Your task to perform on an android device: Open the Play Movies app and select the watchlist tab. Image 0: 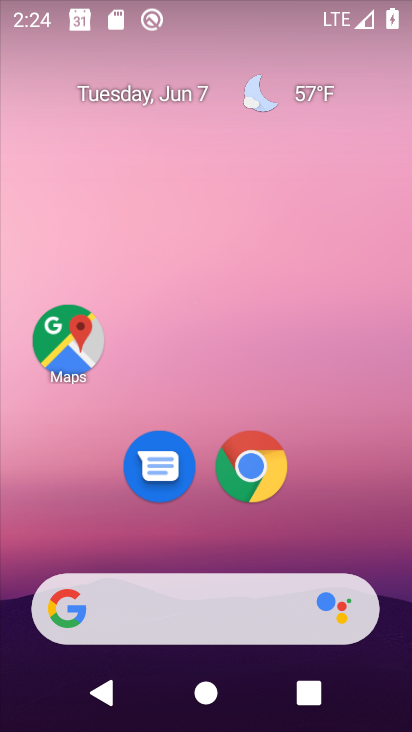
Step 0: drag from (186, 573) to (271, 40)
Your task to perform on an android device: Open the Play Movies app and select the watchlist tab. Image 1: 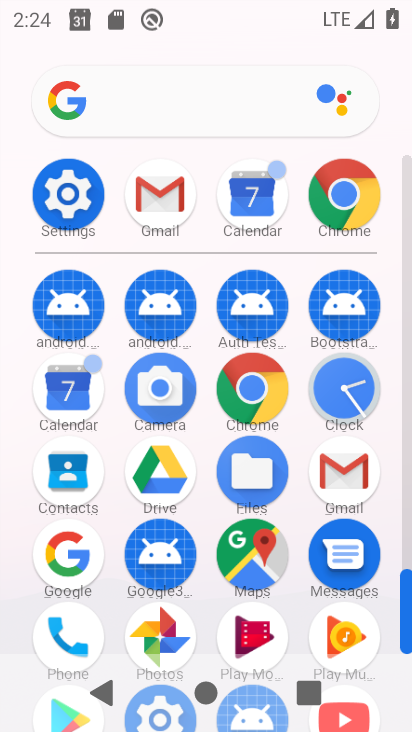
Step 1: click (242, 629)
Your task to perform on an android device: Open the Play Movies app and select the watchlist tab. Image 2: 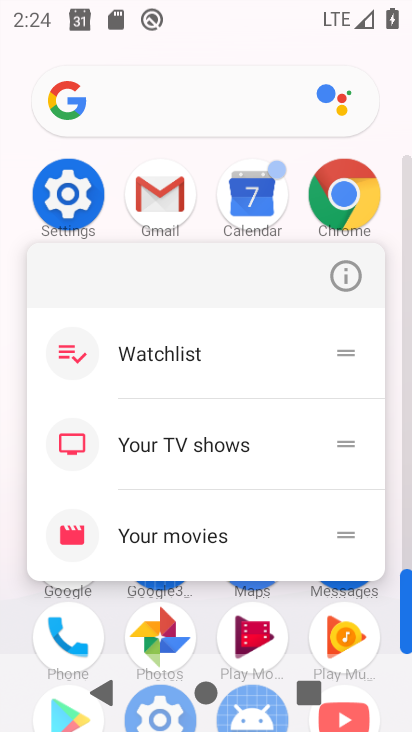
Step 2: click (244, 627)
Your task to perform on an android device: Open the Play Movies app and select the watchlist tab. Image 3: 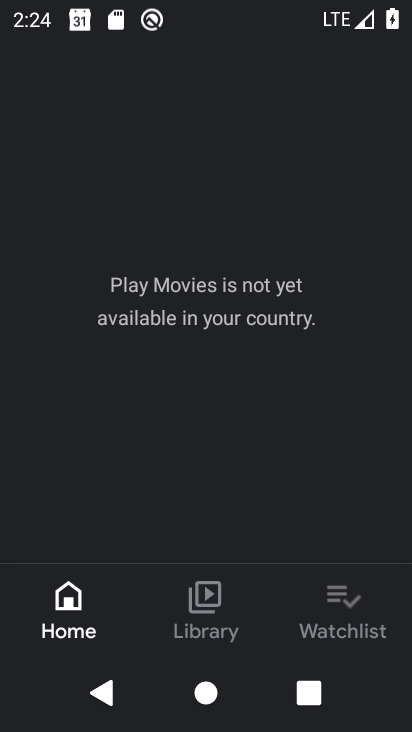
Step 3: click (352, 600)
Your task to perform on an android device: Open the Play Movies app and select the watchlist tab. Image 4: 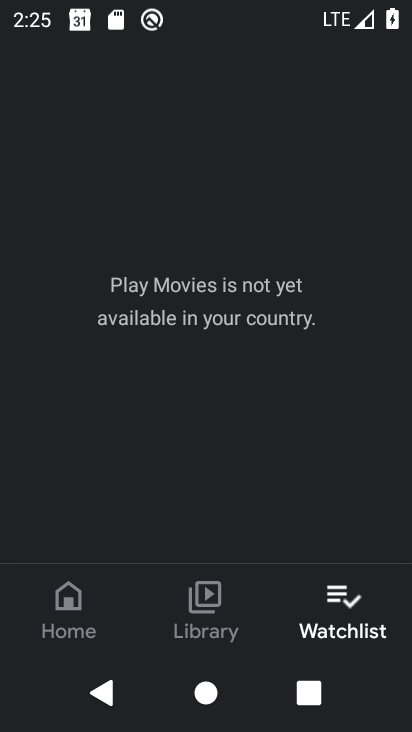
Step 4: task complete